Your task to perform on an android device: Add logitech g910 to the cart on costco.com, then select checkout. Image 0: 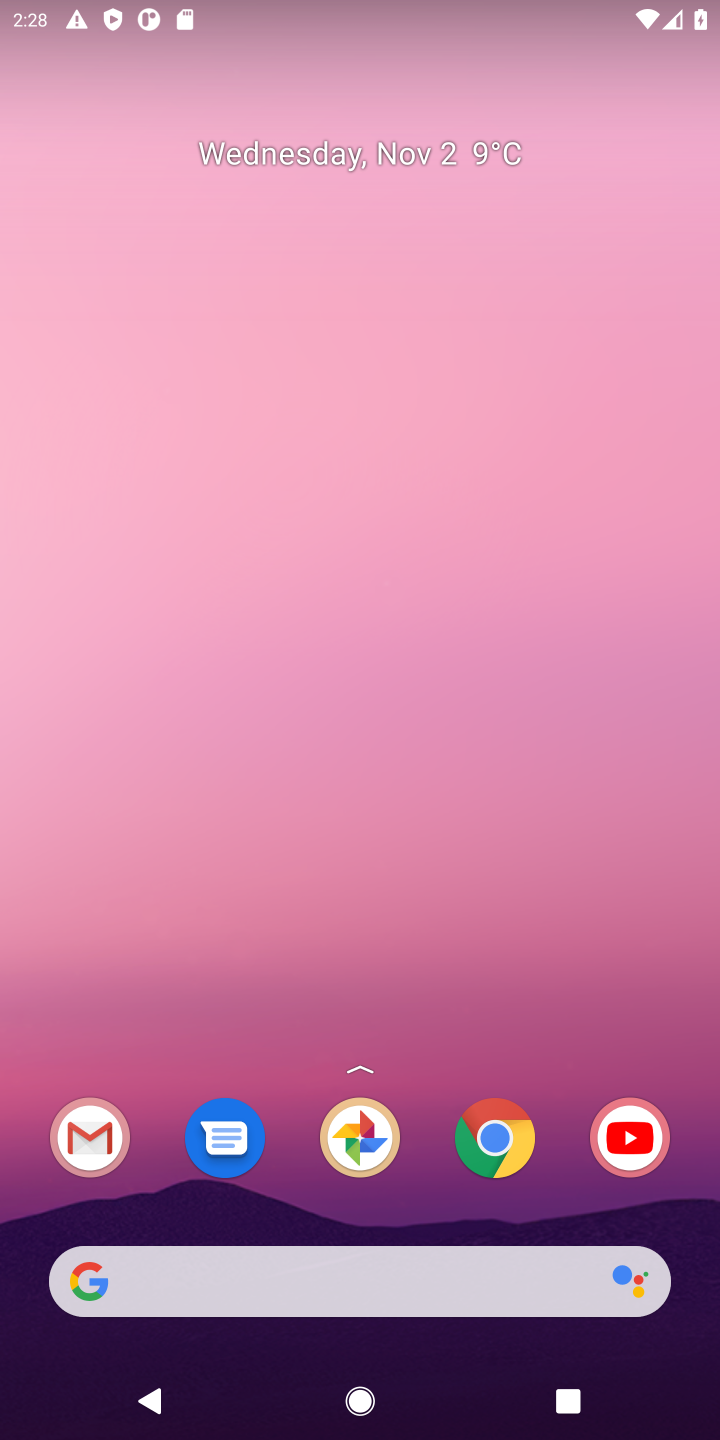
Step 0: click (509, 1144)
Your task to perform on an android device: Add logitech g910 to the cart on costco.com, then select checkout. Image 1: 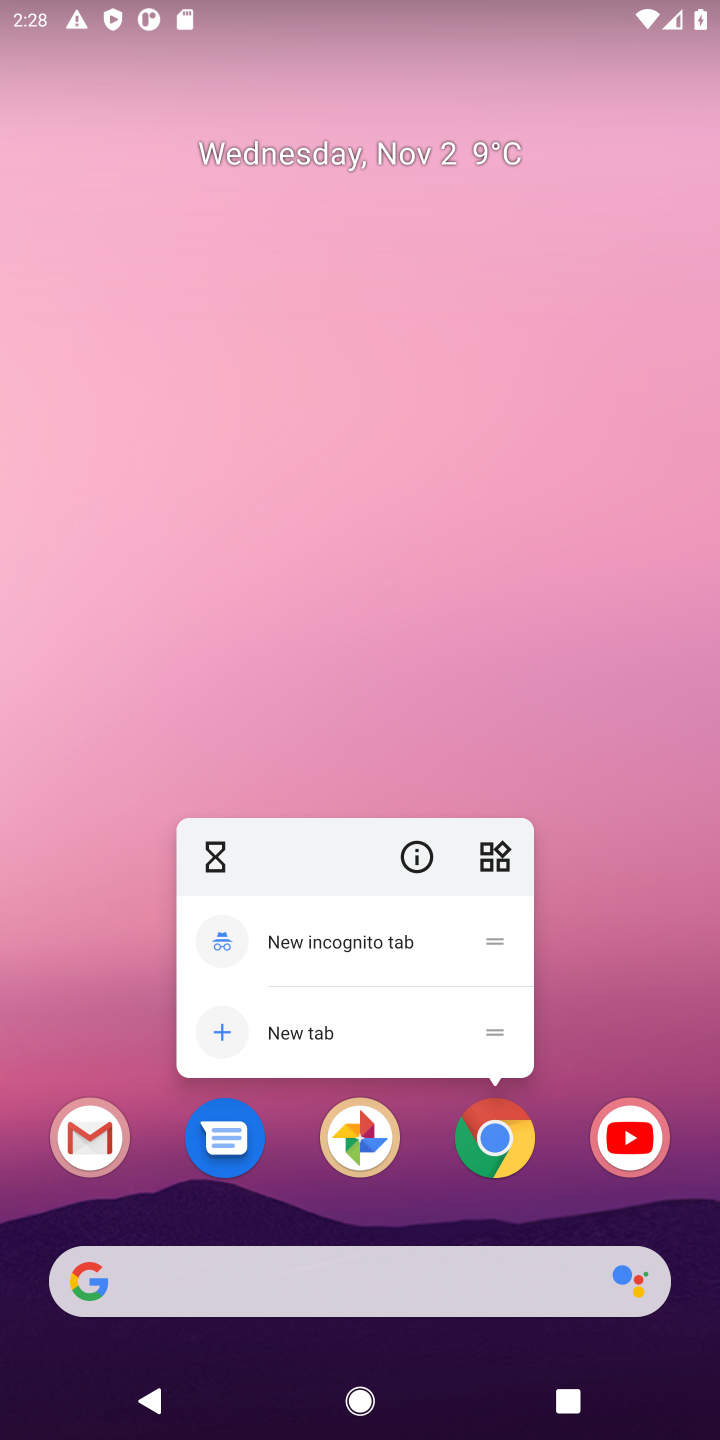
Step 1: click (493, 1122)
Your task to perform on an android device: Add logitech g910 to the cart on costco.com, then select checkout. Image 2: 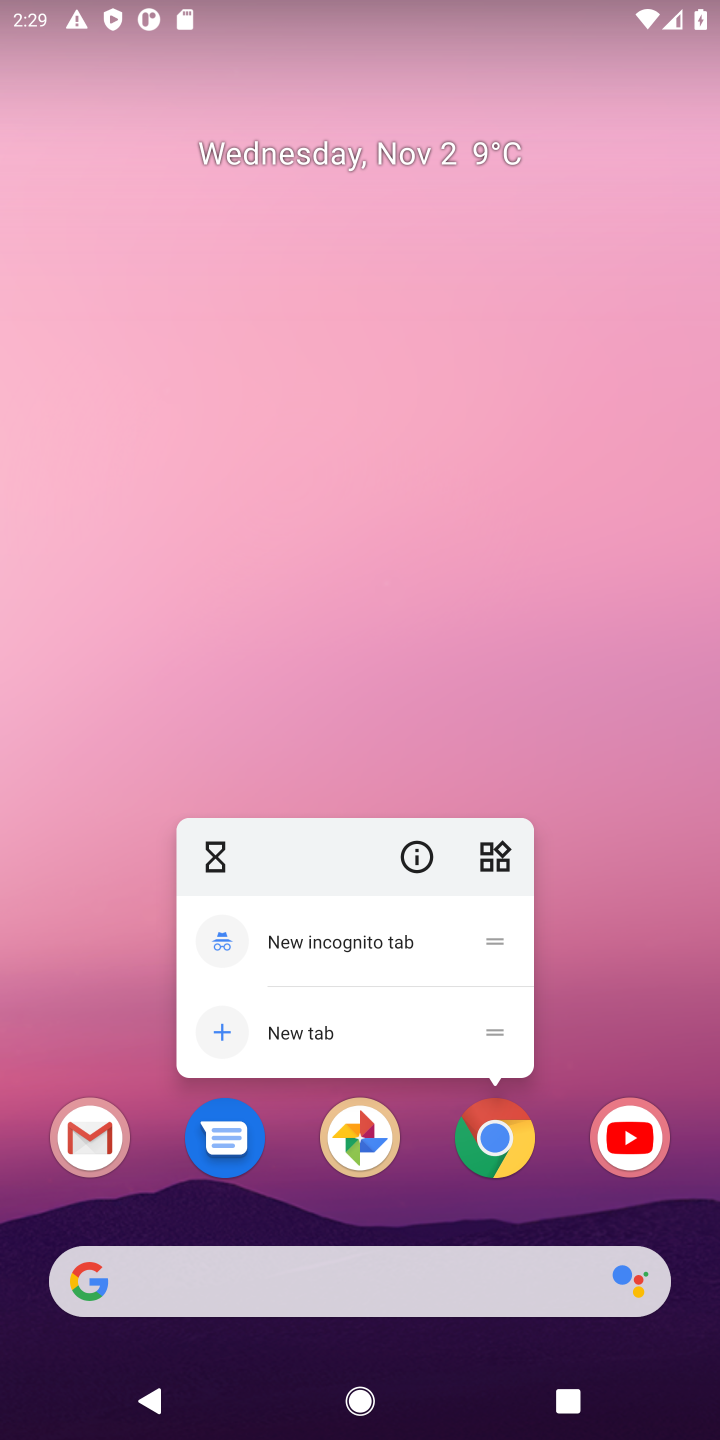
Step 2: click (494, 1141)
Your task to perform on an android device: Add logitech g910 to the cart on costco.com, then select checkout. Image 3: 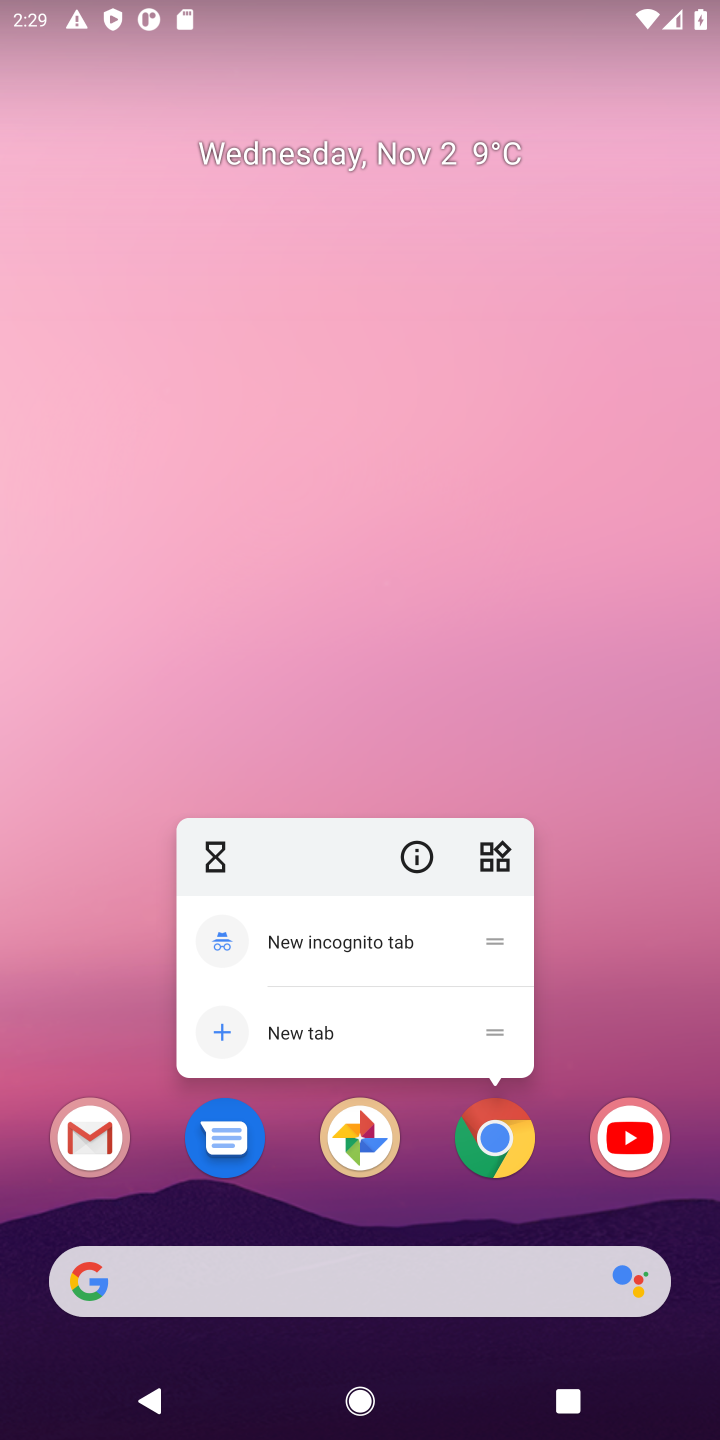
Step 3: click (494, 1141)
Your task to perform on an android device: Add logitech g910 to the cart on costco.com, then select checkout. Image 4: 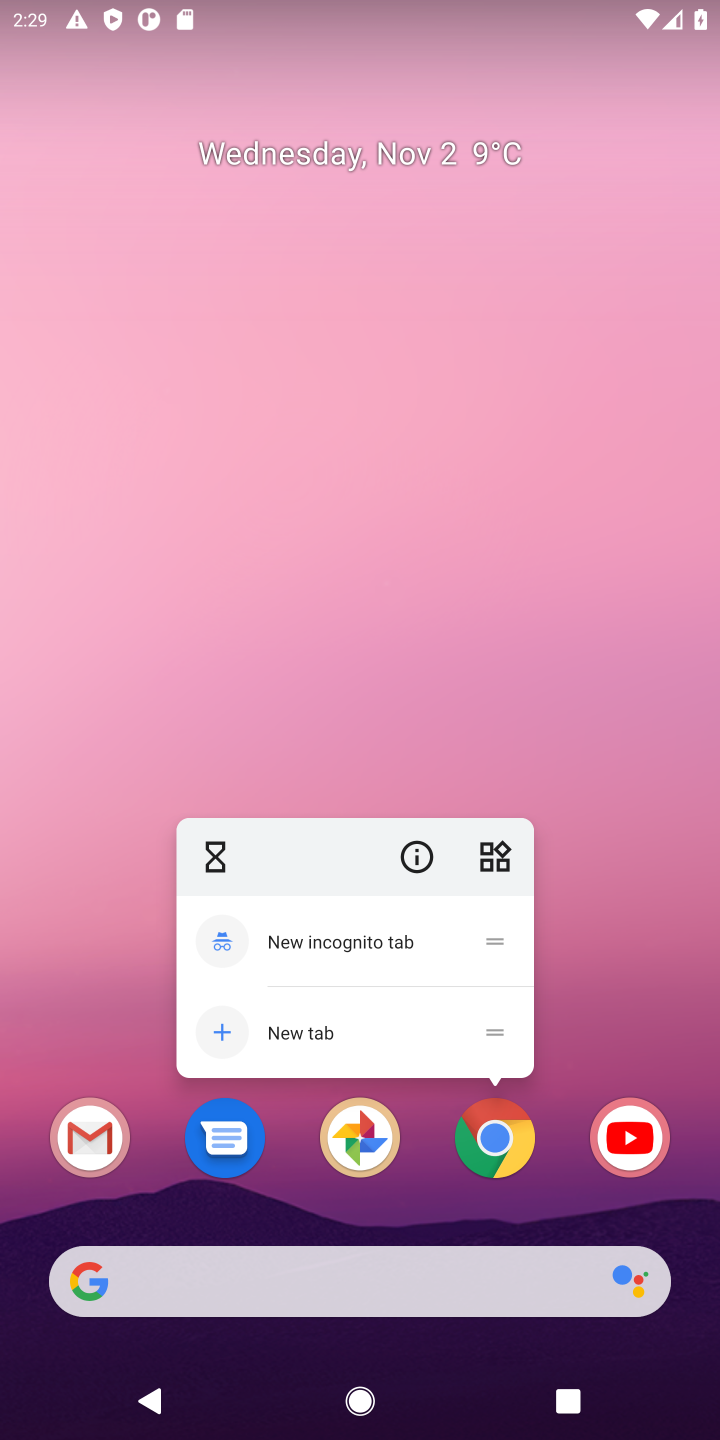
Step 4: click (494, 1141)
Your task to perform on an android device: Add logitech g910 to the cart on costco.com, then select checkout. Image 5: 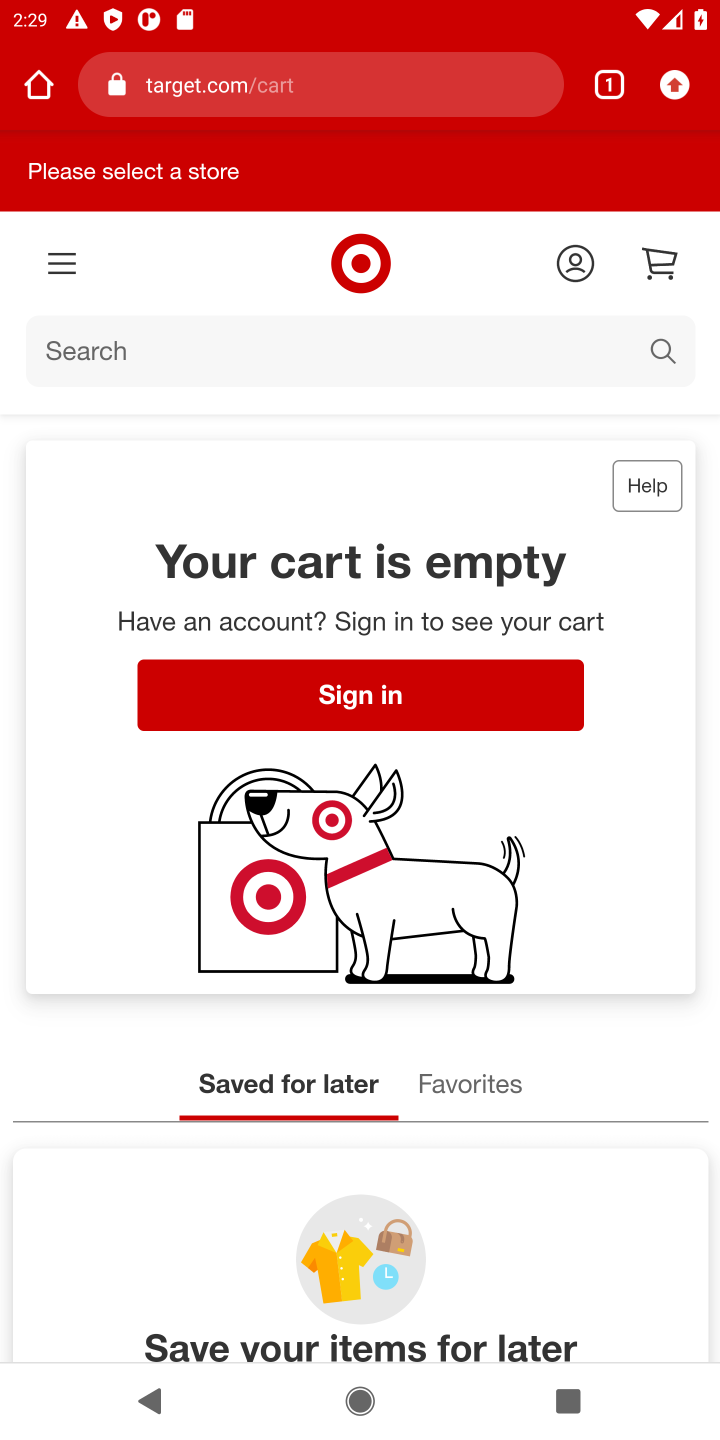
Step 5: click (310, 78)
Your task to perform on an android device: Add logitech g910 to the cart on costco.com, then select checkout. Image 6: 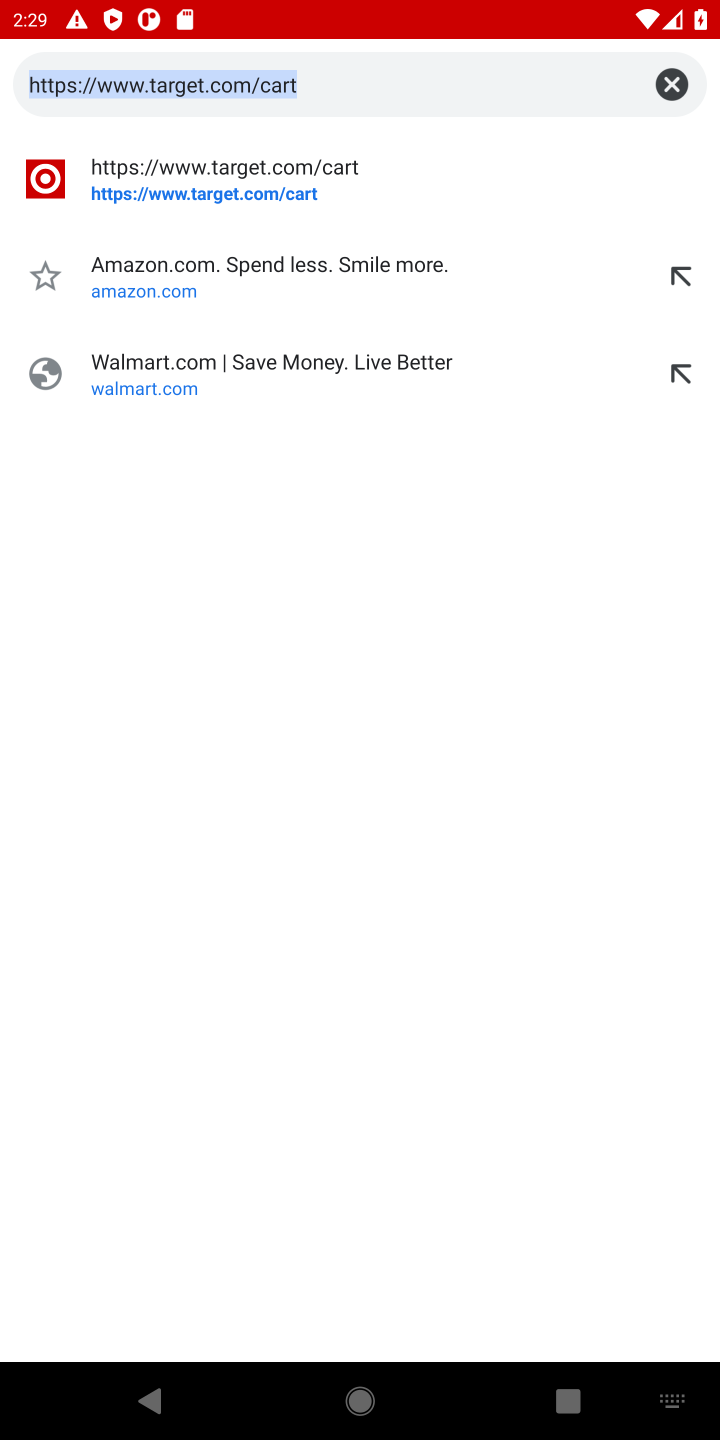
Step 6: click (676, 89)
Your task to perform on an android device: Add logitech g910 to the cart on costco.com, then select checkout. Image 7: 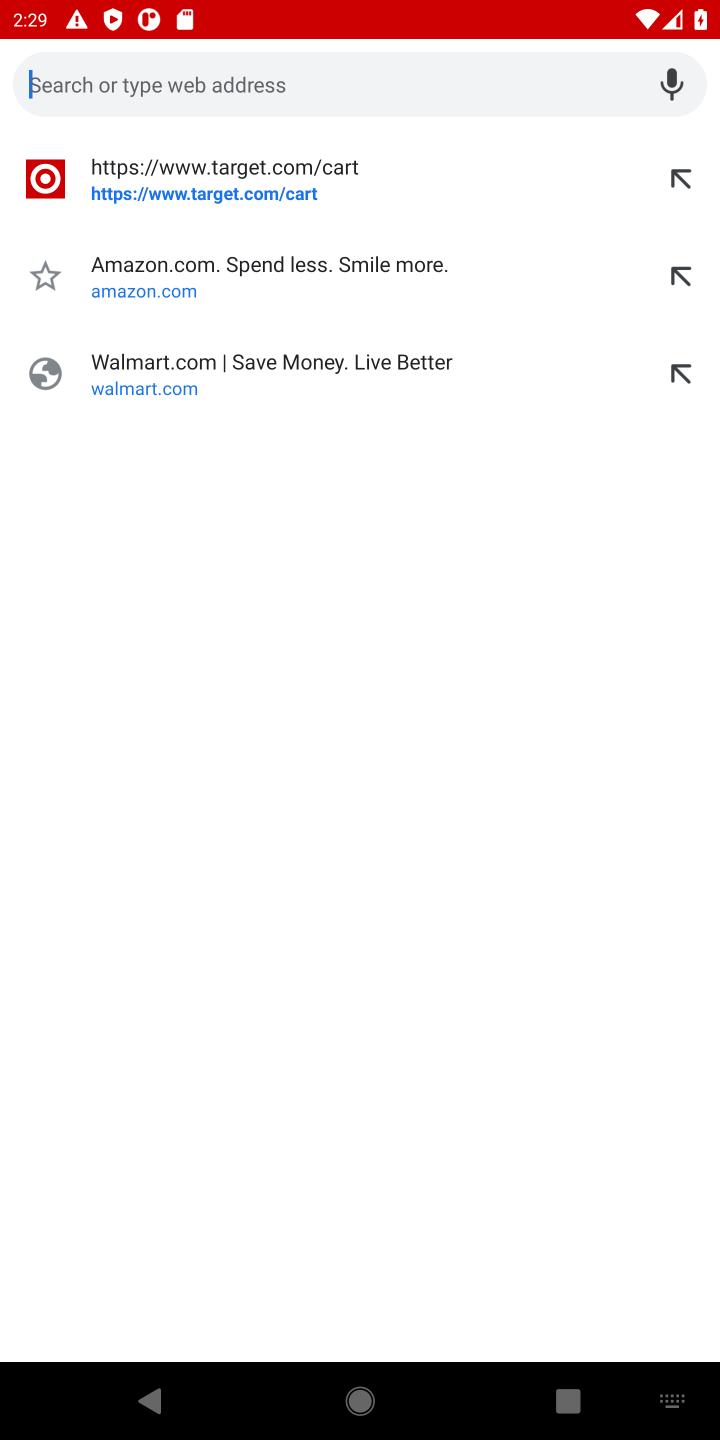
Step 7: type "costco"
Your task to perform on an android device: Add logitech g910 to the cart on costco.com, then select checkout. Image 8: 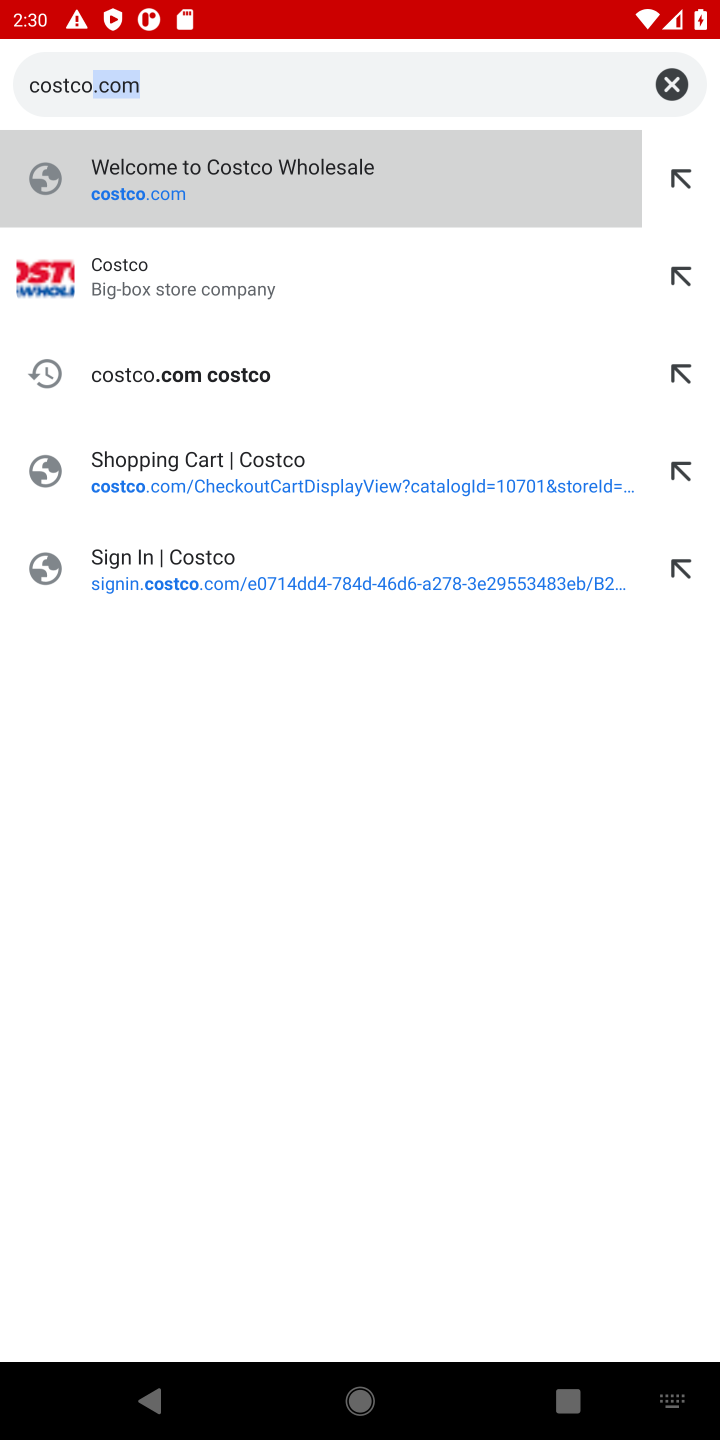
Step 8: click (240, 163)
Your task to perform on an android device: Add logitech g910 to the cart on costco.com, then select checkout. Image 9: 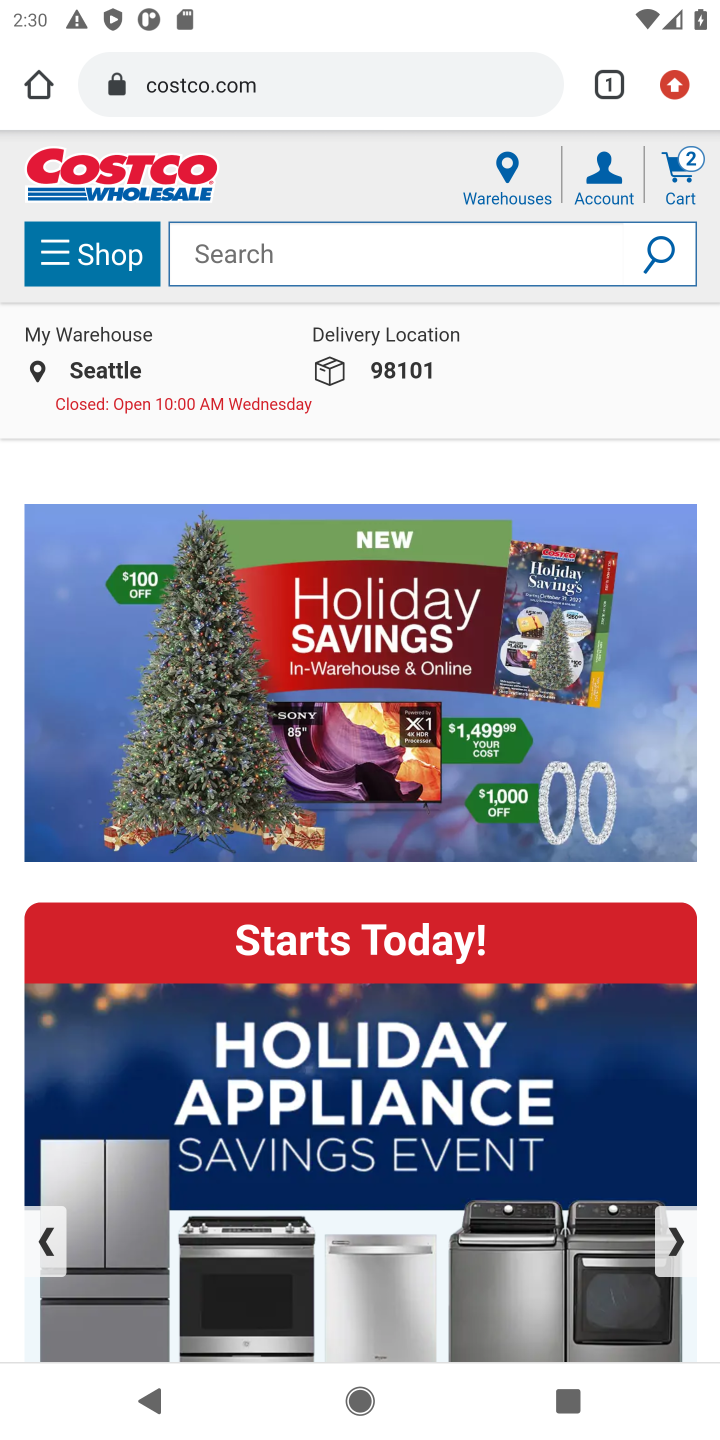
Step 9: click (412, 245)
Your task to perform on an android device: Add logitech g910 to the cart on costco.com, then select checkout. Image 10: 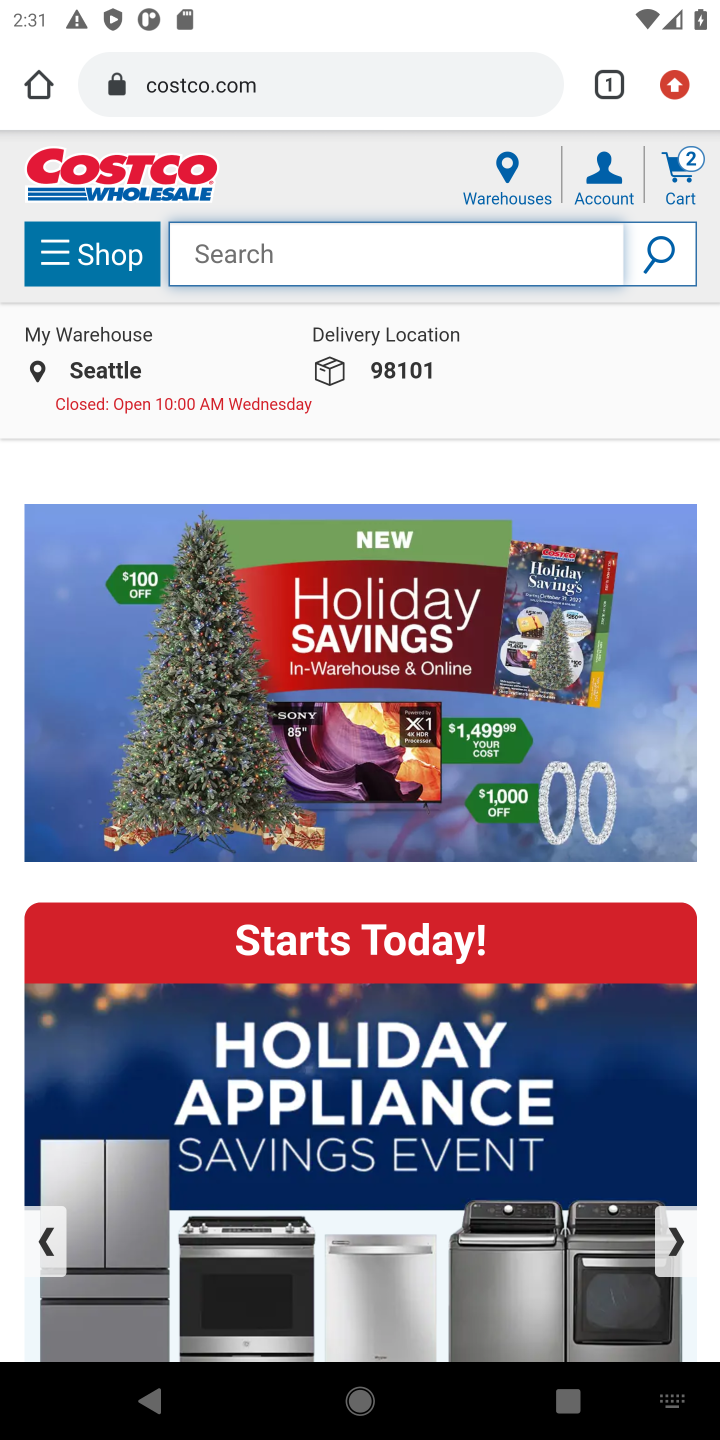
Step 10: type "logitech g910"
Your task to perform on an android device: Add logitech g910 to the cart on costco.com, then select checkout. Image 11: 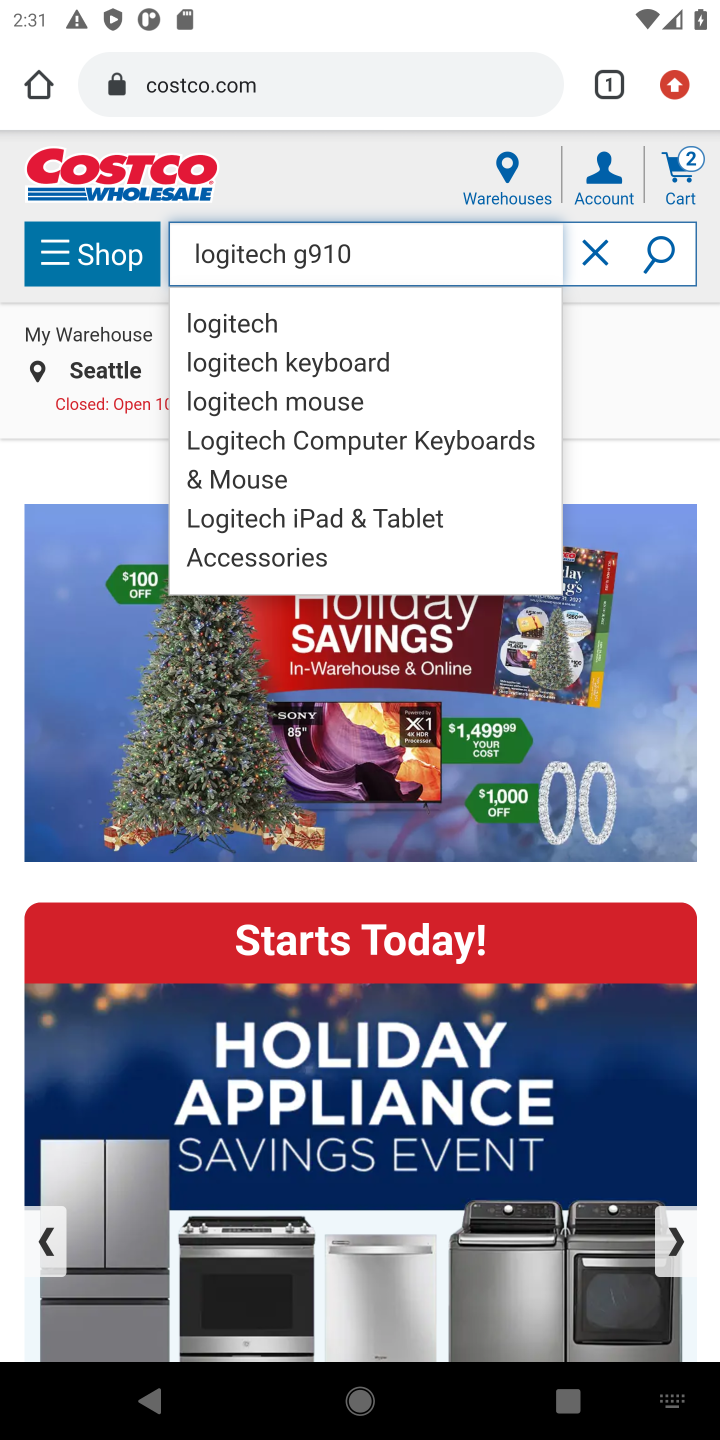
Step 11: click (687, 265)
Your task to perform on an android device: Add logitech g910 to the cart on costco.com, then select checkout. Image 12: 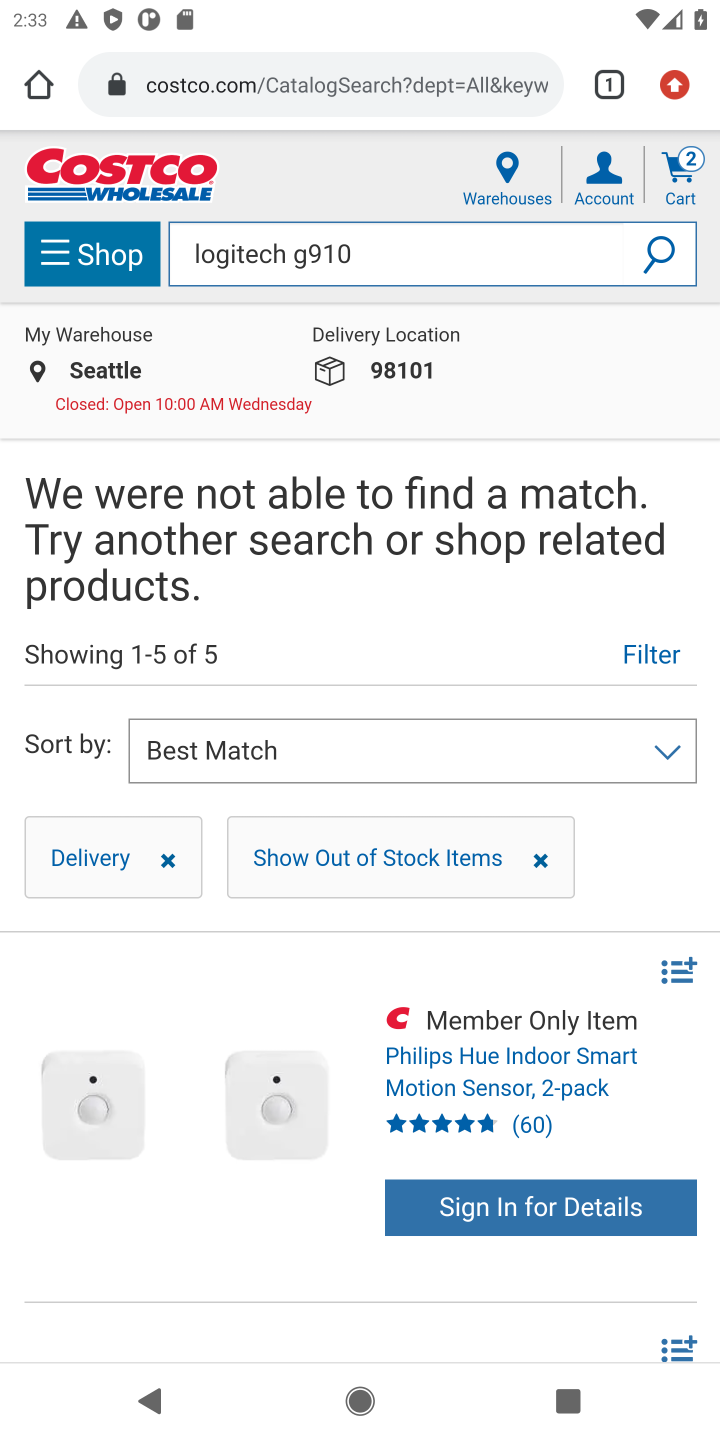
Step 12: task complete